Your task to perform on an android device: open app "Google Calendar" Image 0: 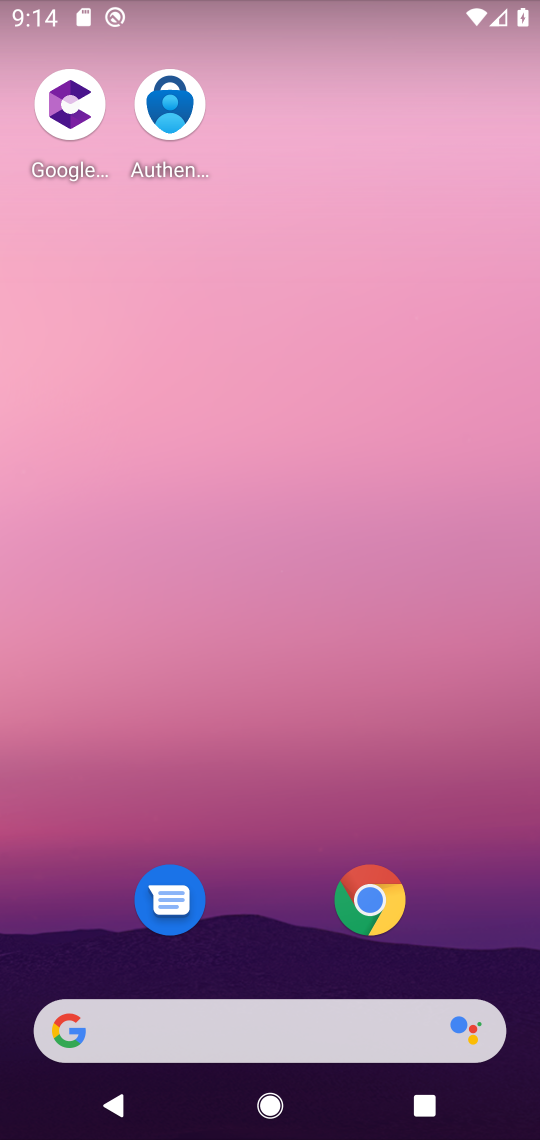
Step 0: drag from (262, 837) to (323, 397)
Your task to perform on an android device: open app "Google Calendar" Image 1: 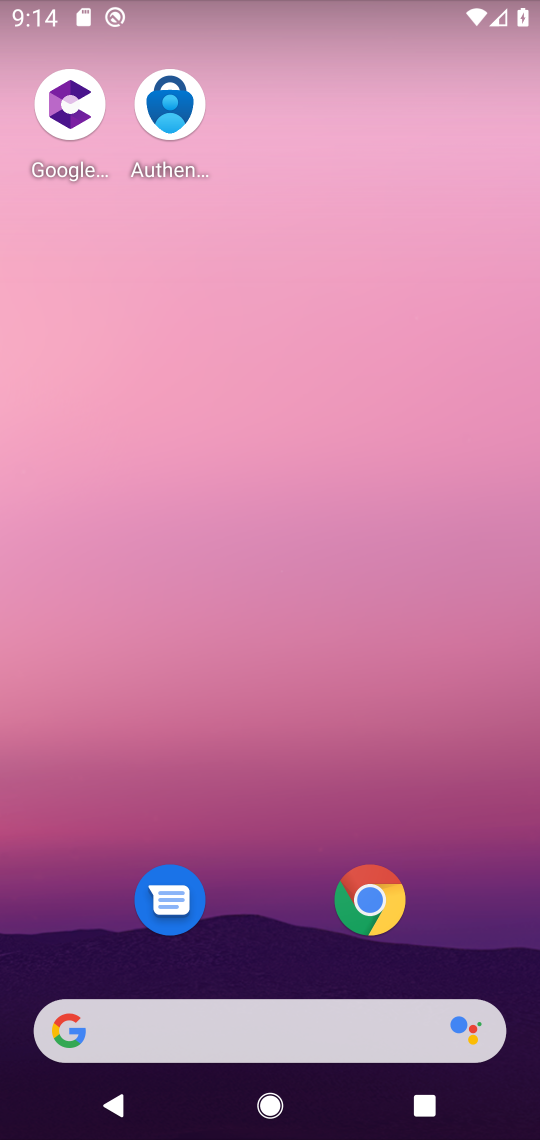
Step 1: drag from (187, 910) to (376, 236)
Your task to perform on an android device: open app "Google Calendar" Image 2: 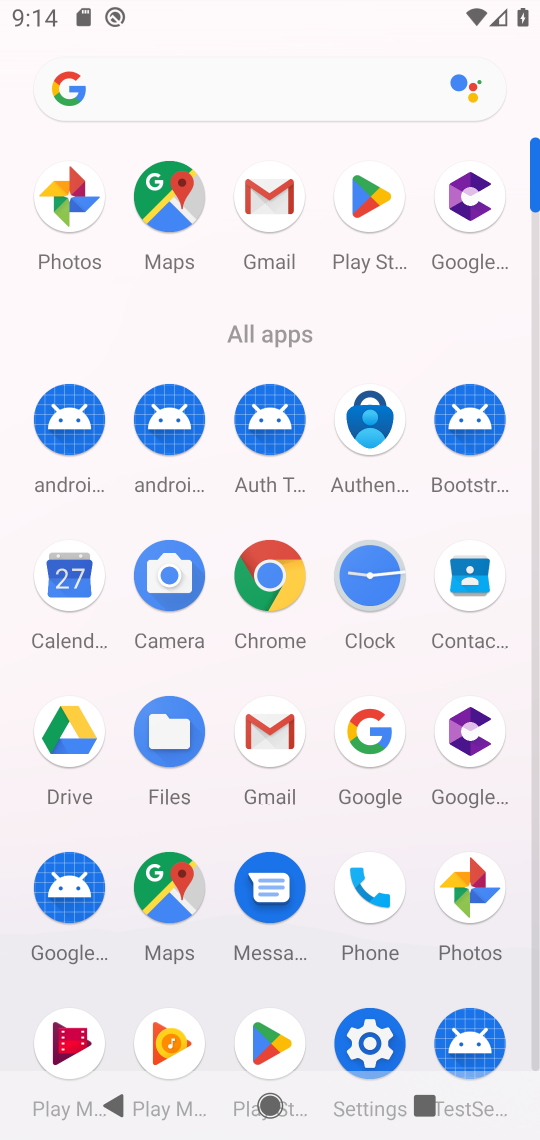
Step 2: click (383, 267)
Your task to perform on an android device: open app "Google Calendar" Image 3: 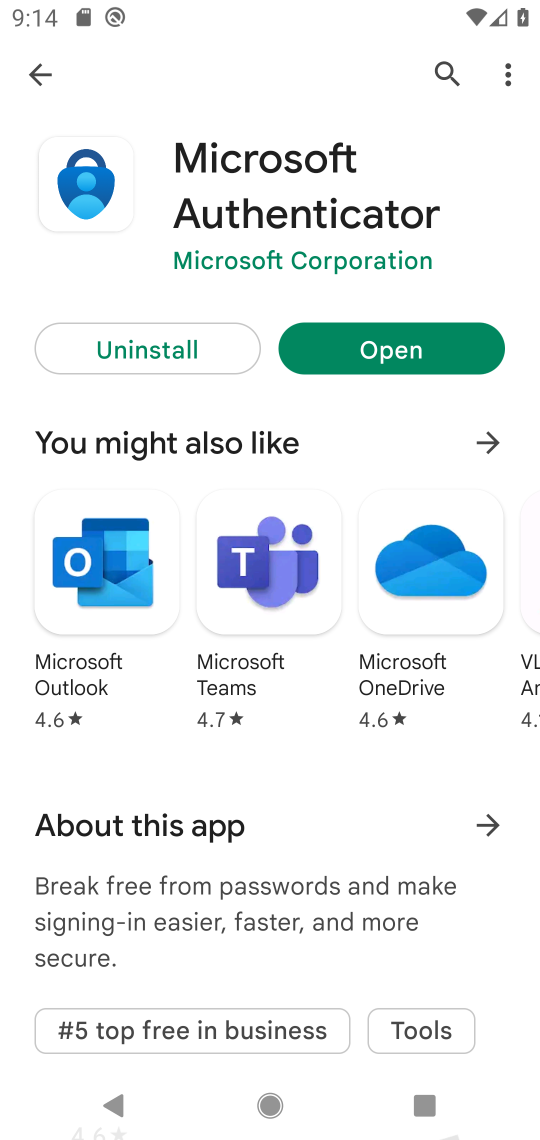
Step 3: click (457, 70)
Your task to perform on an android device: open app "Google Calendar" Image 4: 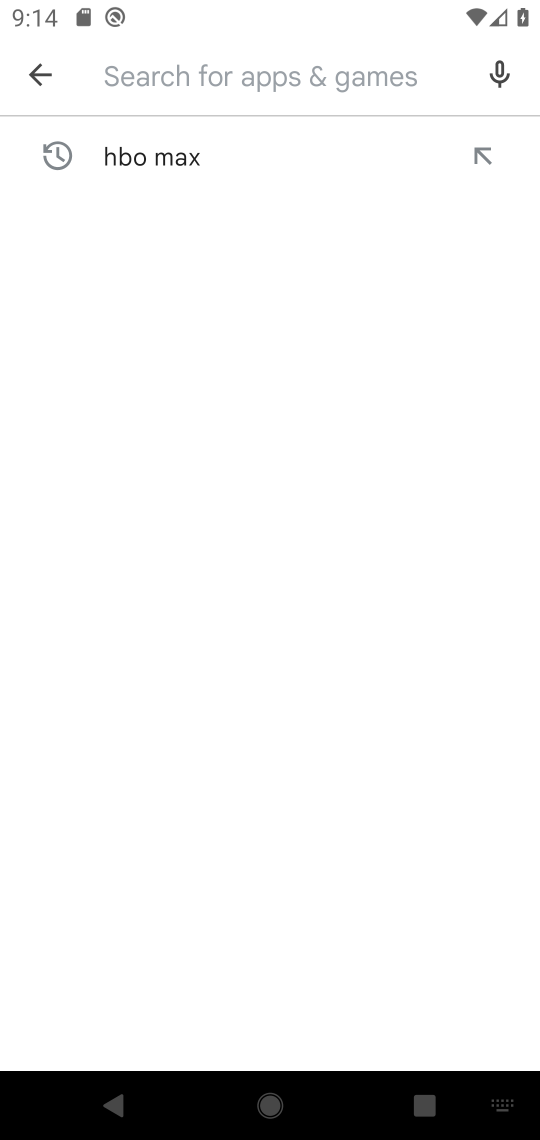
Step 4: type "Google Calendar"
Your task to perform on an android device: open app "Google Calendar" Image 5: 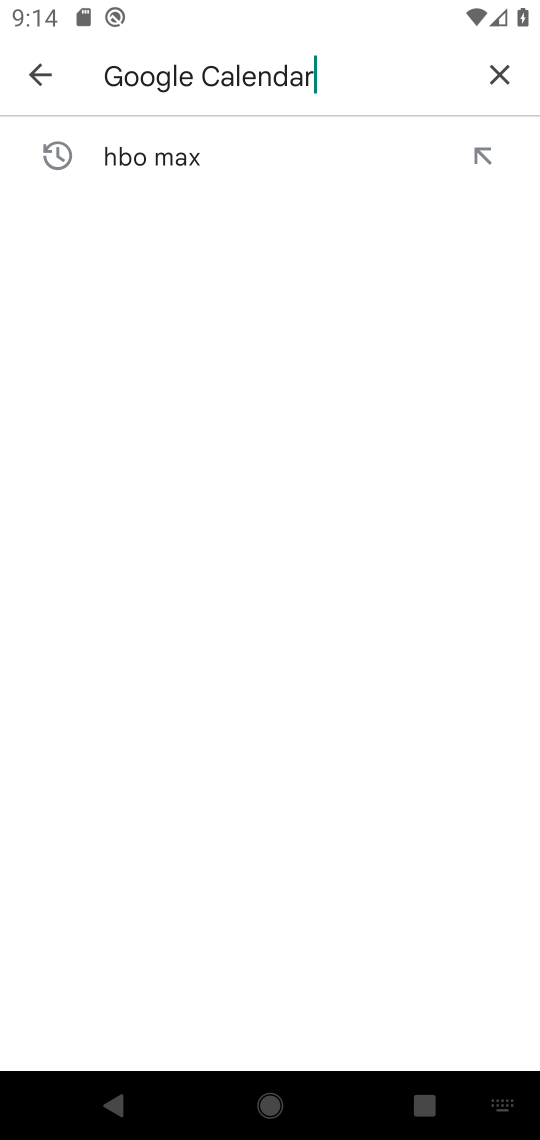
Step 5: type ""
Your task to perform on an android device: open app "Google Calendar" Image 6: 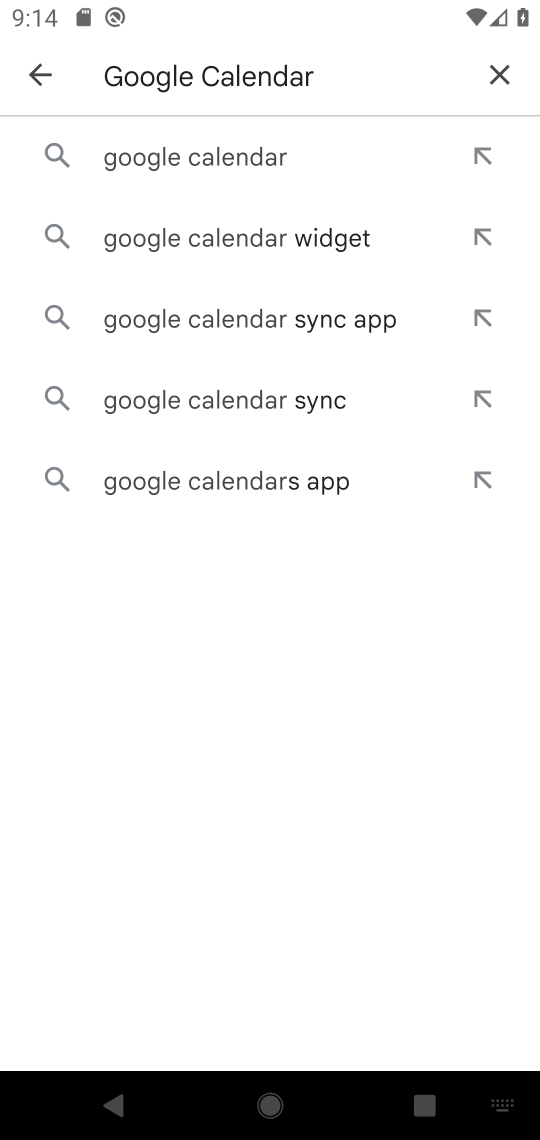
Step 6: click (286, 143)
Your task to perform on an android device: open app "Google Calendar" Image 7: 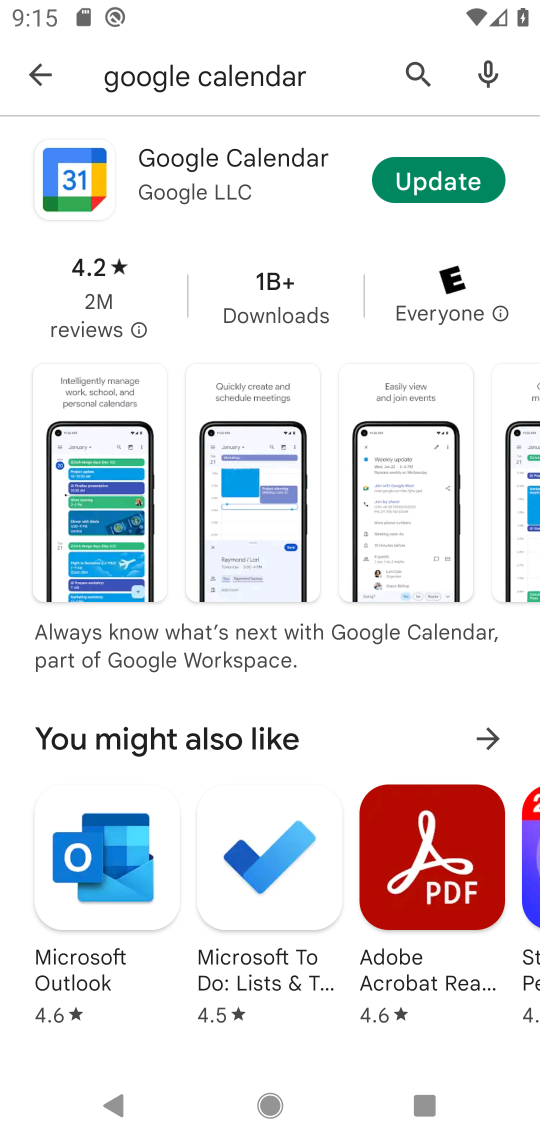
Step 7: click (412, 188)
Your task to perform on an android device: open app "Google Calendar" Image 8: 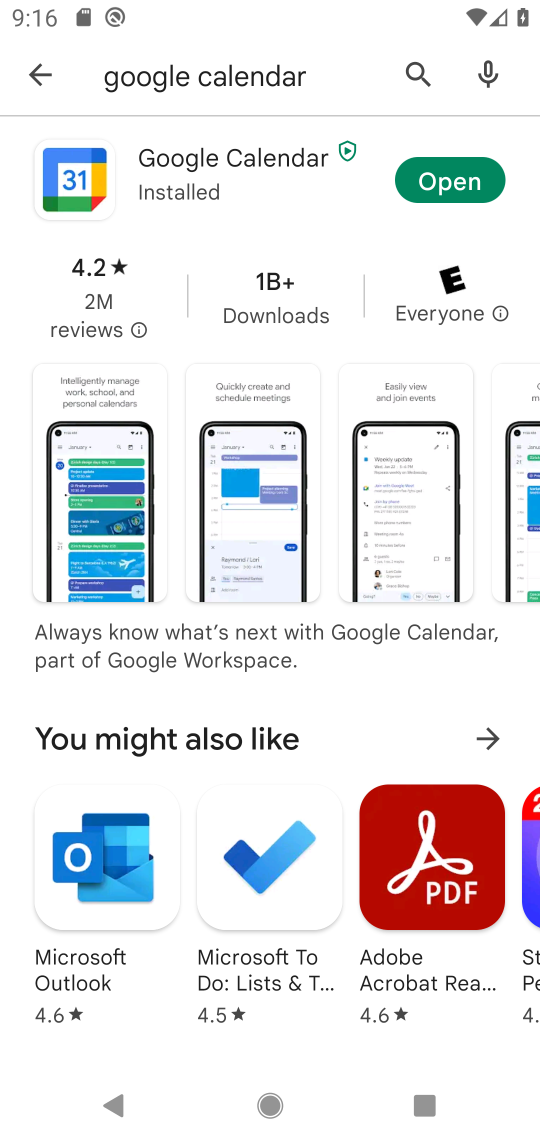
Step 8: click (467, 187)
Your task to perform on an android device: open app "Google Calendar" Image 9: 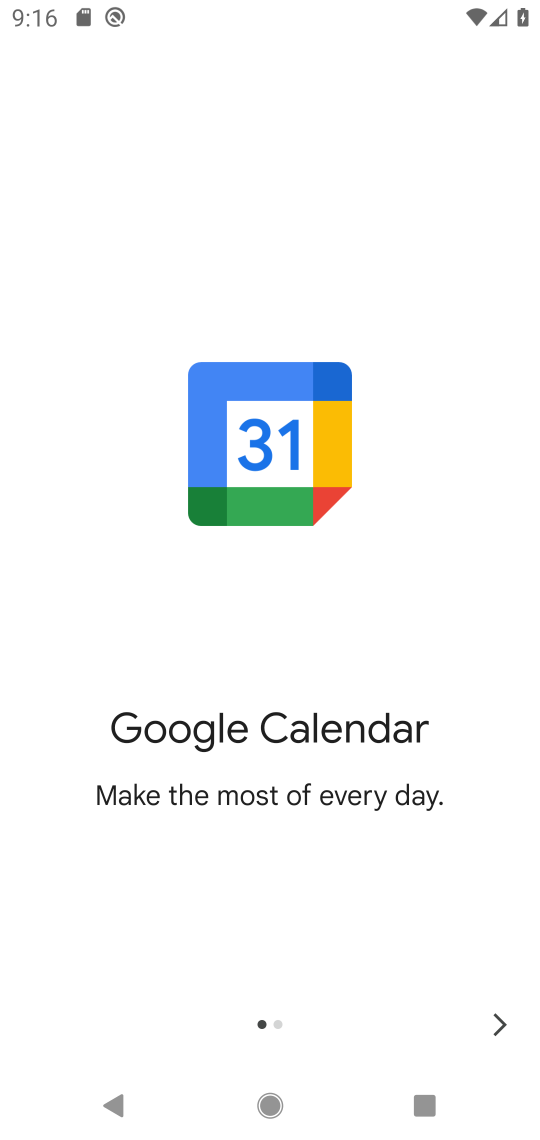
Step 9: task complete